Your task to perform on an android device: toggle improve location accuracy Image 0: 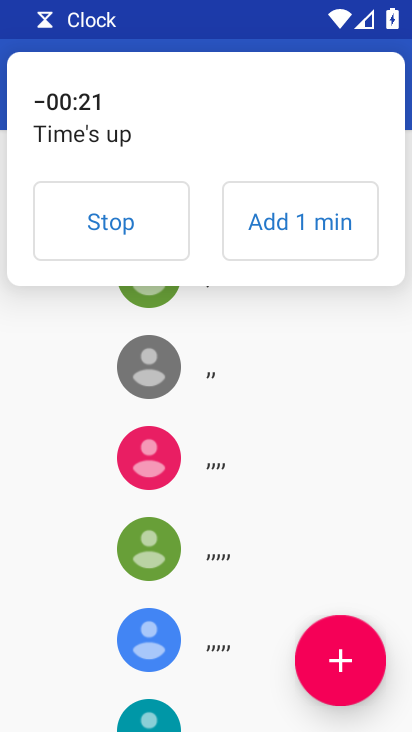
Step 0: press home button
Your task to perform on an android device: toggle improve location accuracy Image 1: 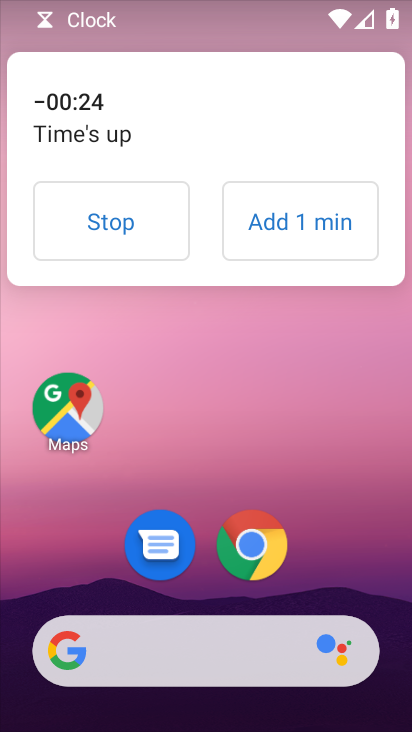
Step 1: click (108, 226)
Your task to perform on an android device: toggle improve location accuracy Image 2: 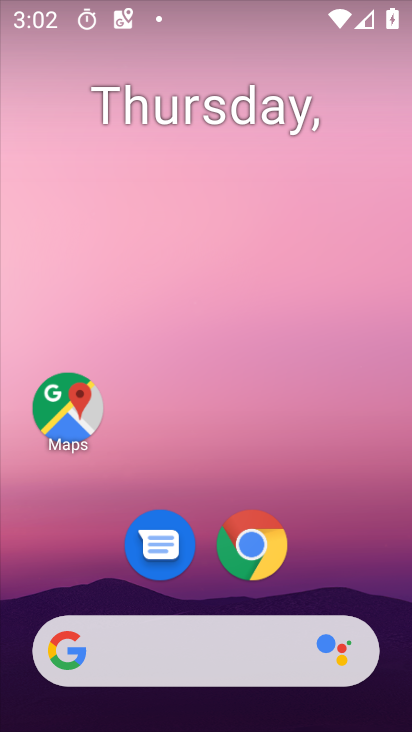
Step 2: drag from (208, 726) to (222, 126)
Your task to perform on an android device: toggle improve location accuracy Image 3: 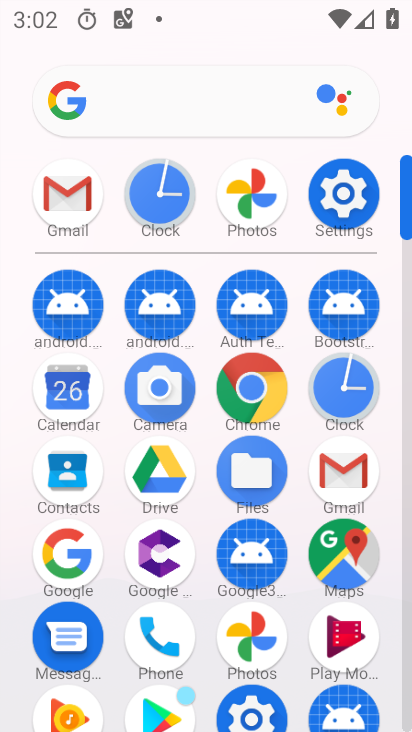
Step 3: click (348, 191)
Your task to perform on an android device: toggle improve location accuracy Image 4: 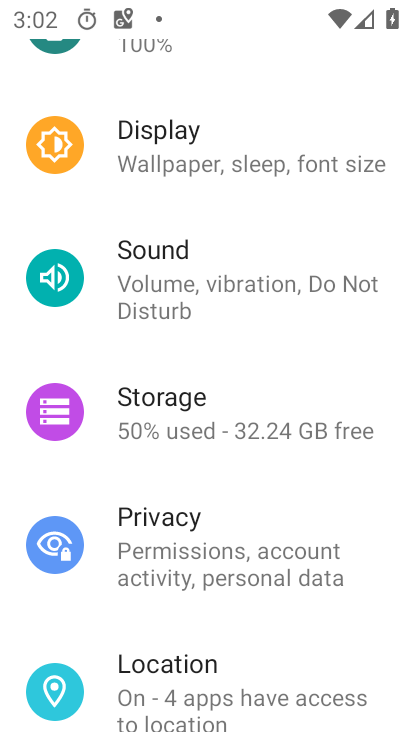
Step 4: click (201, 683)
Your task to perform on an android device: toggle improve location accuracy Image 5: 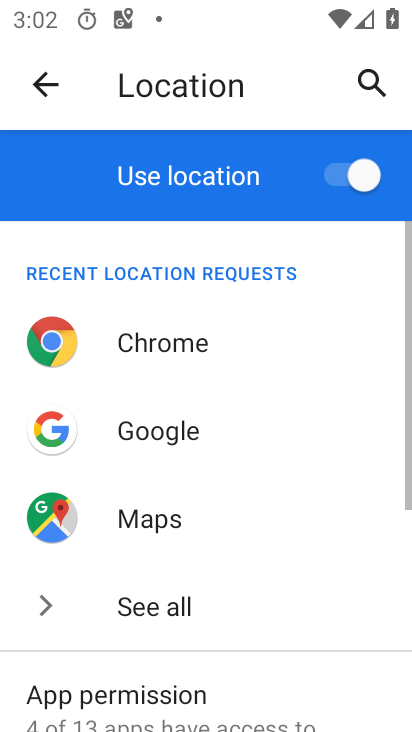
Step 5: drag from (197, 696) to (209, 315)
Your task to perform on an android device: toggle improve location accuracy Image 6: 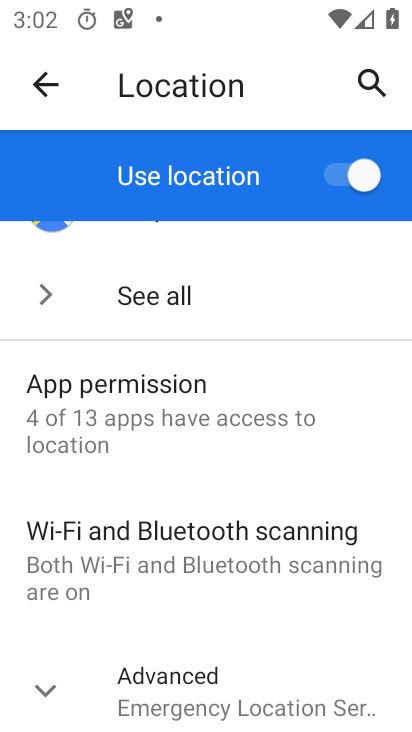
Step 6: drag from (199, 665) to (206, 318)
Your task to perform on an android device: toggle improve location accuracy Image 7: 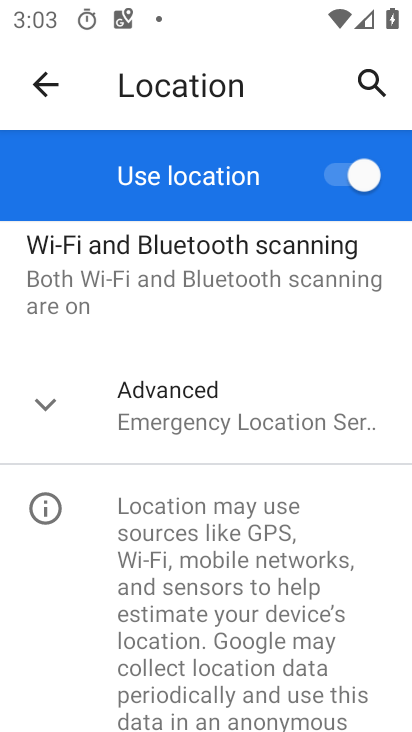
Step 7: click (198, 407)
Your task to perform on an android device: toggle improve location accuracy Image 8: 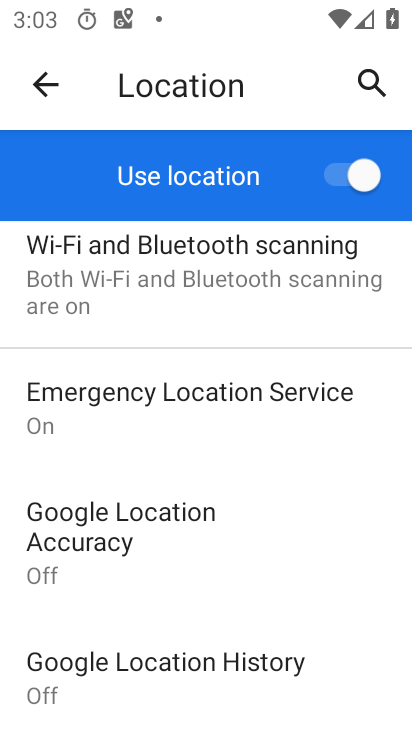
Step 8: click (154, 517)
Your task to perform on an android device: toggle improve location accuracy Image 9: 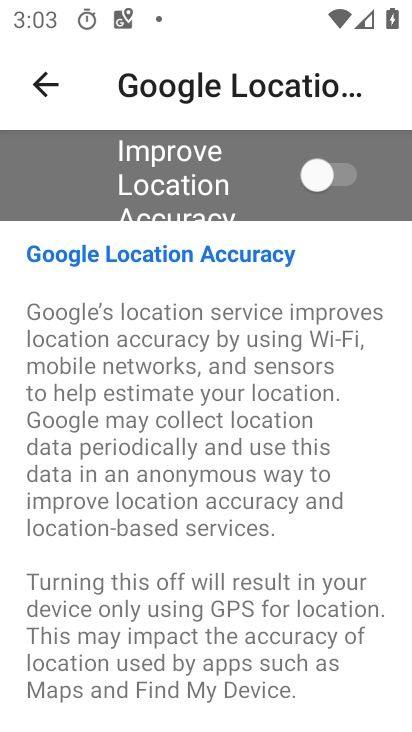
Step 9: click (343, 175)
Your task to perform on an android device: toggle improve location accuracy Image 10: 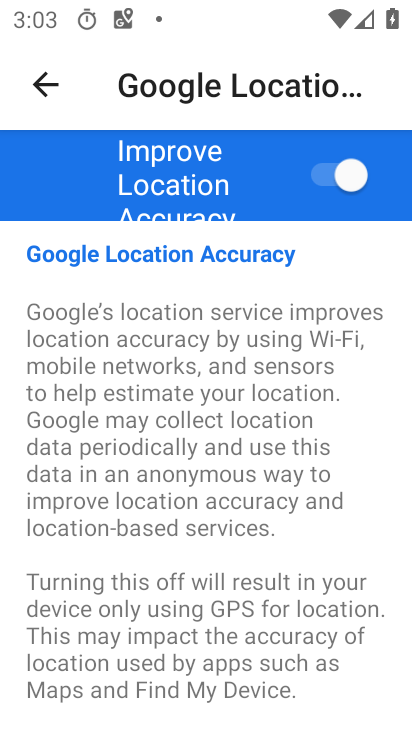
Step 10: task complete